Your task to perform on an android device: toggle airplane mode Image 0: 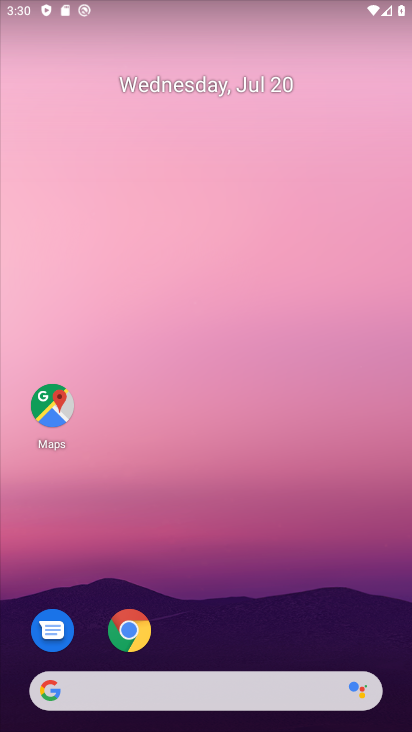
Step 0: press home button
Your task to perform on an android device: toggle airplane mode Image 1: 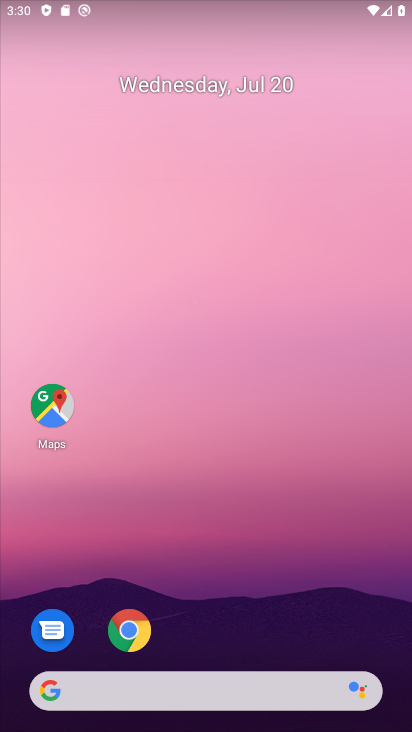
Step 1: drag from (226, 2) to (337, 586)
Your task to perform on an android device: toggle airplane mode Image 2: 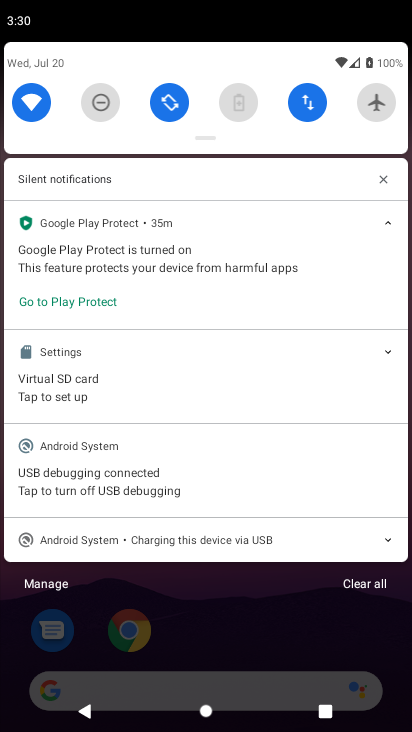
Step 2: click (380, 109)
Your task to perform on an android device: toggle airplane mode Image 3: 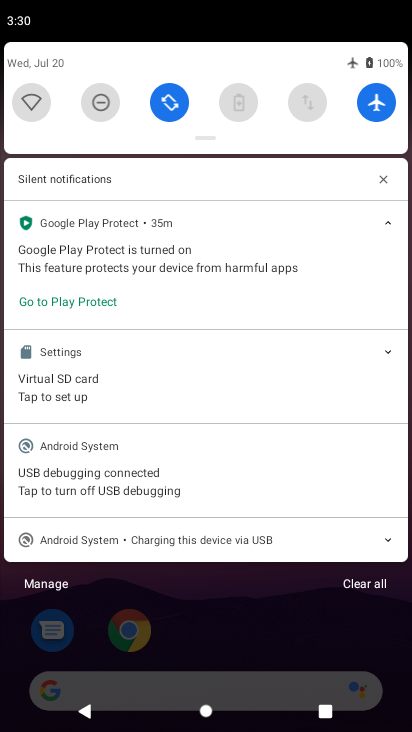
Step 3: task complete